Your task to perform on an android device: open wifi settings Image 0: 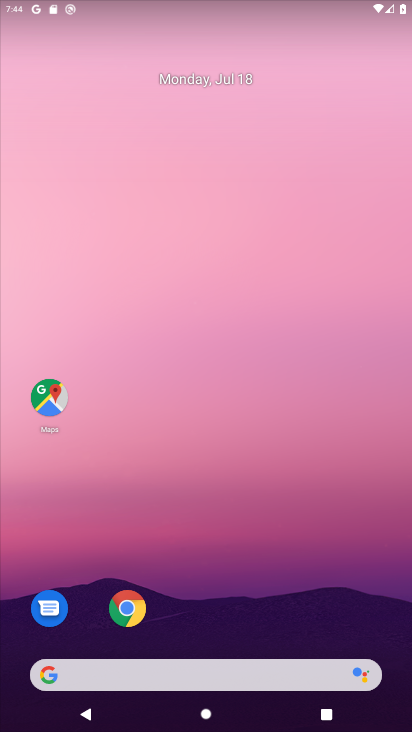
Step 0: drag from (195, 633) to (365, 41)
Your task to perform on an android device: open wifi settings Image 1: 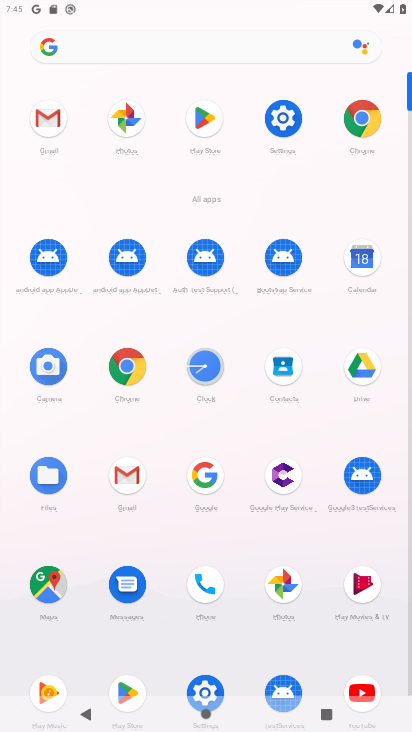
Step 1: click (207, 676)
Your task to perform on an android device: open wifi settings Image 2: 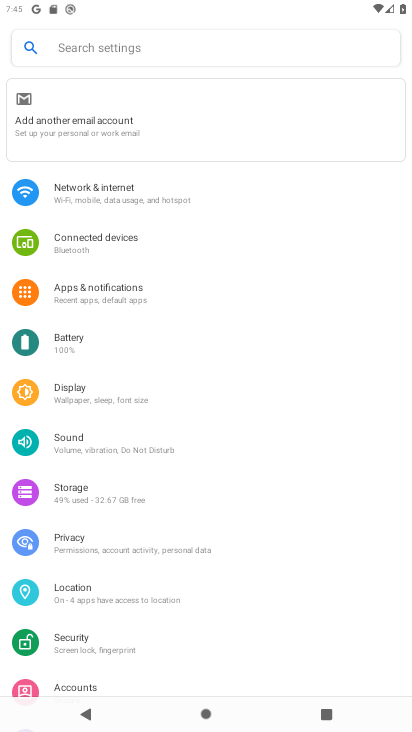
Step 2: click (91, 192)
Your task to perform on an android device: open wifi settings Image 3: 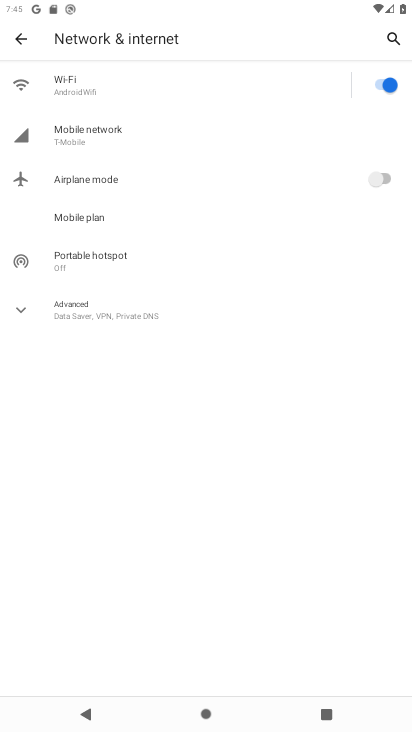
Step 3: click (90, 78)
Your task to perform on an android device: open wifi settings Image 4: 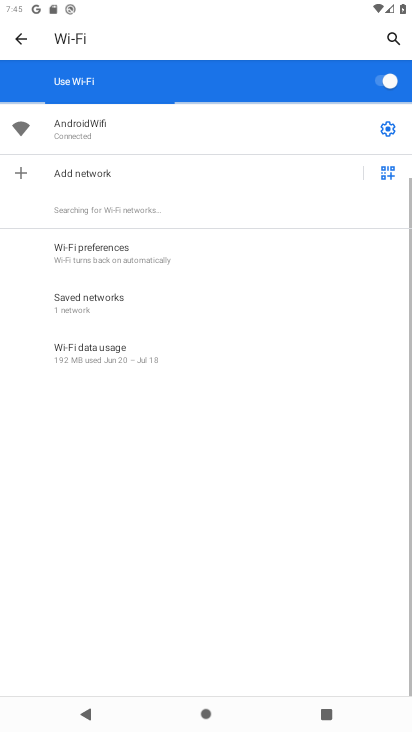
Step 4: task complete